Your task to perform on an android device: turn off smart reply in the gmail app Image 0: 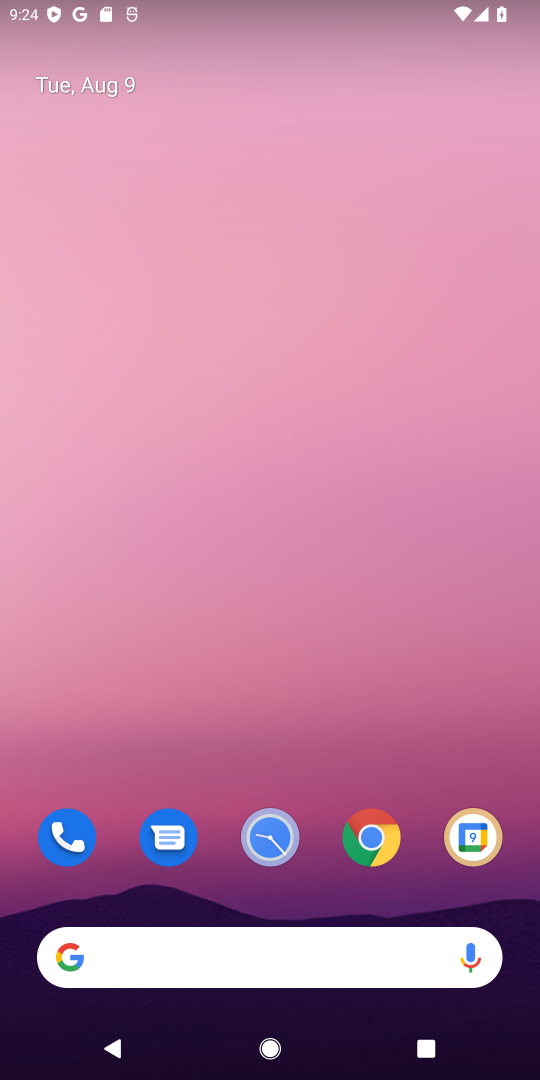
Step 0: drag from (307, 813) to (298, 58)
Your task to perform on an android device: turn off smart reply in the gmail app Image 1: 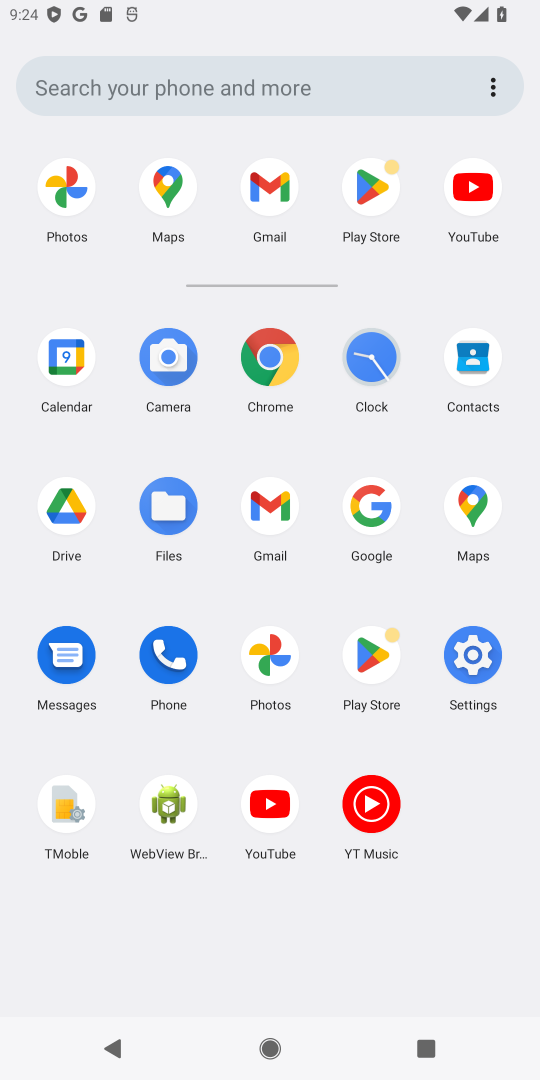
Step 1: click (281, 509)
Your task to perform on an android device: turn off smart reply in the gmail app Image 2: 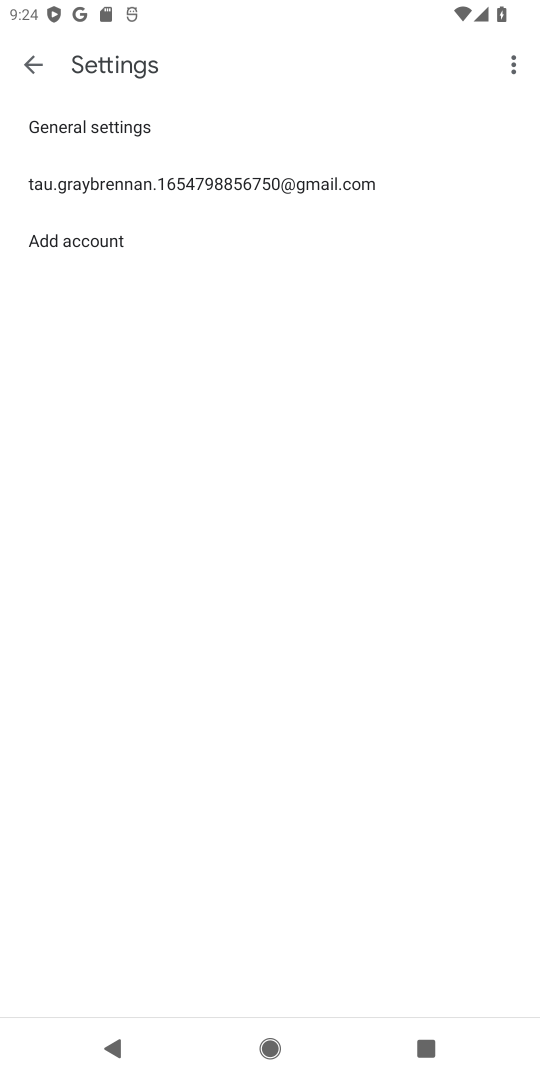
Step 2: click (153, 179)
Your task to perform on an android device: turn off smart reply in the gmail app Image 3: 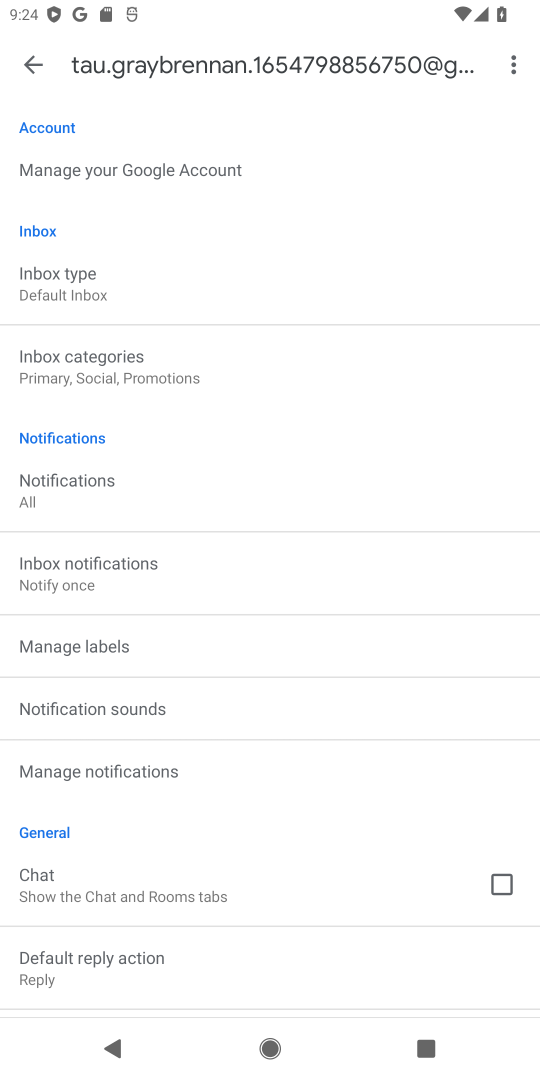
Step 3: drag from (117, 896) to (103, 472)
Your task to perform on an android device: turn off smart reply in the gmail app Image 4: 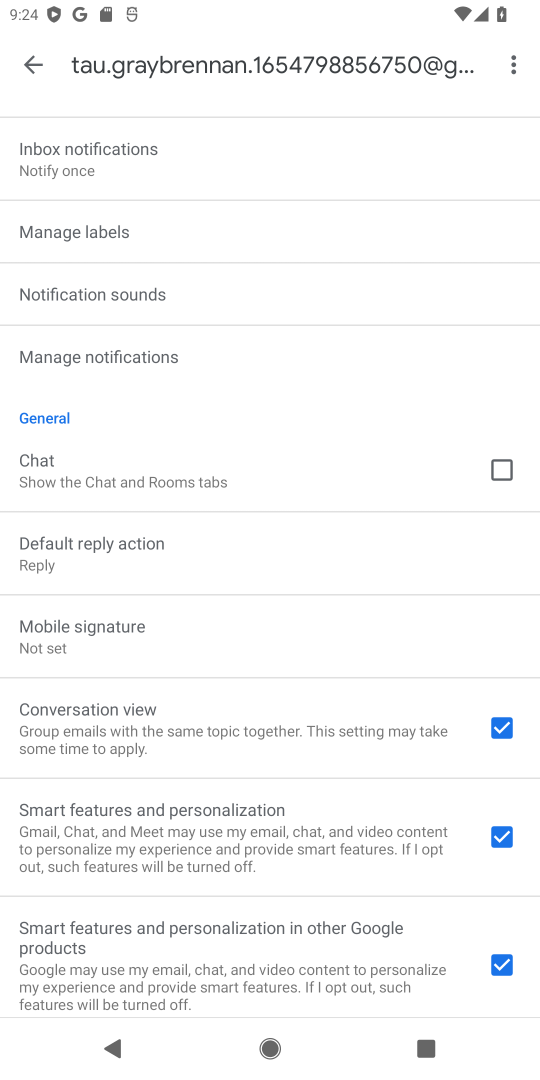
Step 4: drag from (133, 917) to (135, 705)
Your task to perform on an android device: turn off smart reply in the gmail app Image 5: 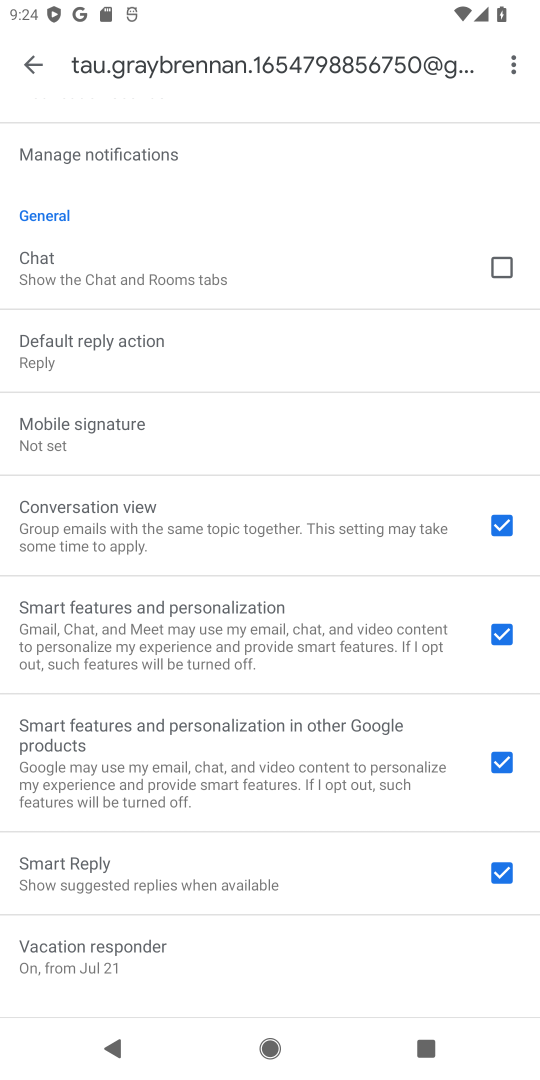
Step 5: click (504, 872)
Your task to perform on an android device: turn off smart reply in the gmail app Image 6: 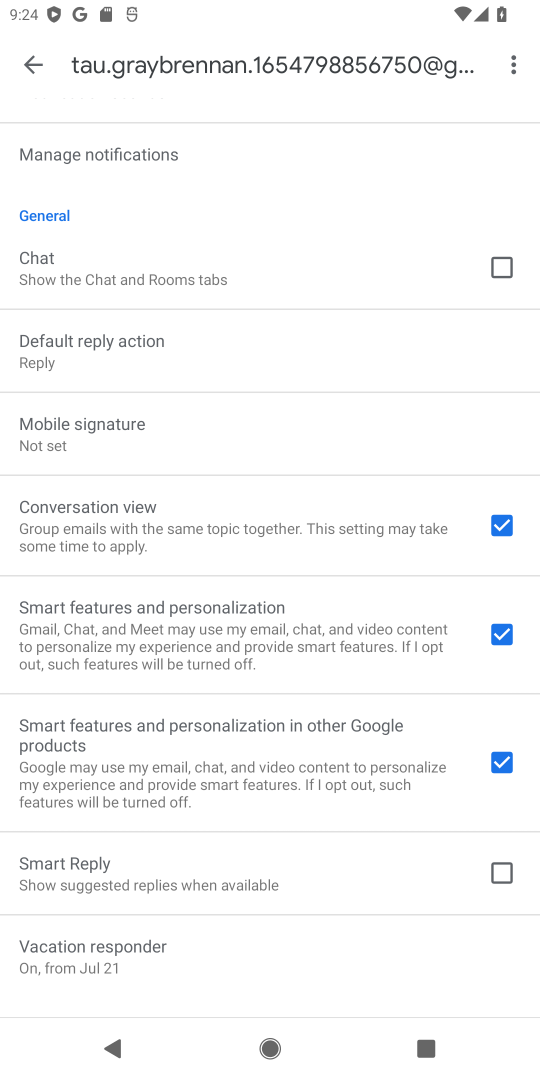
Step 6: task complete